Your task to perform on an android device: Empty the shopping cart on bestbuy.com. Add razer huntsman to the cart on bestbuy.com Image 0: 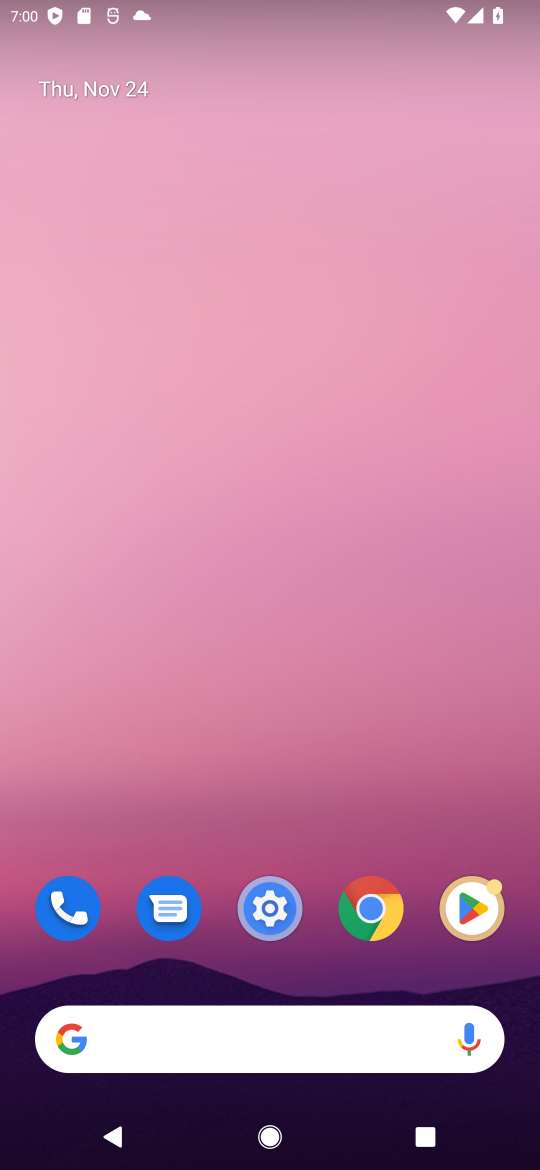
Step 0: click (338, 1025)
Your task to perform on an android device: Empty the shopping cart on bestbuy.com. Add razer huntsman to the cart on bestbuy.com Image 1: 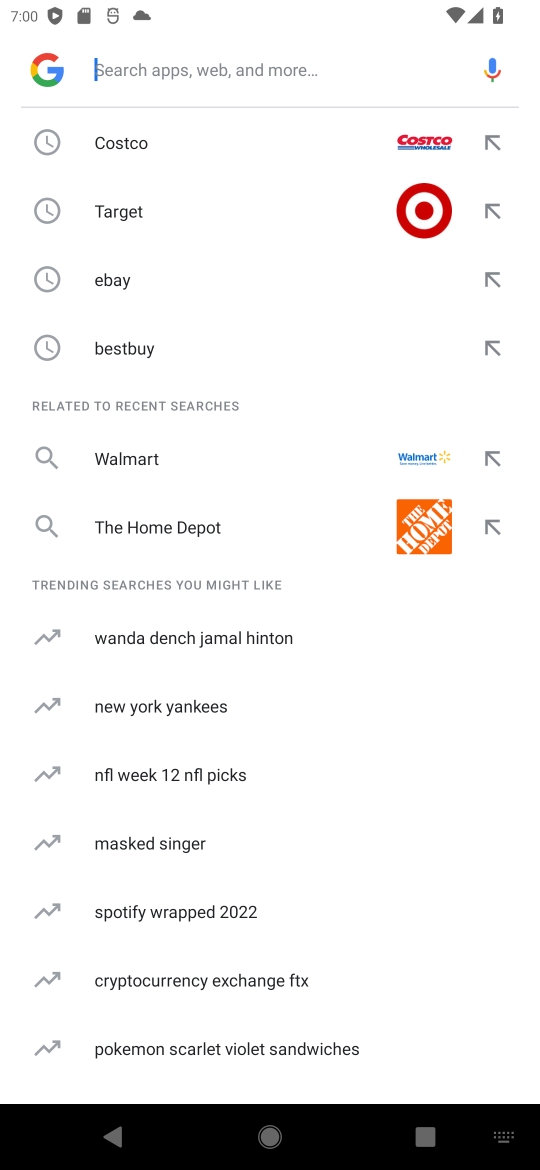
Step 1: type "bestbuy"
Your task to perform on an android device: Empty the shopping cart on bestbuy.com. Add razer huntsman to the cart on bestbuy.com Image 2: 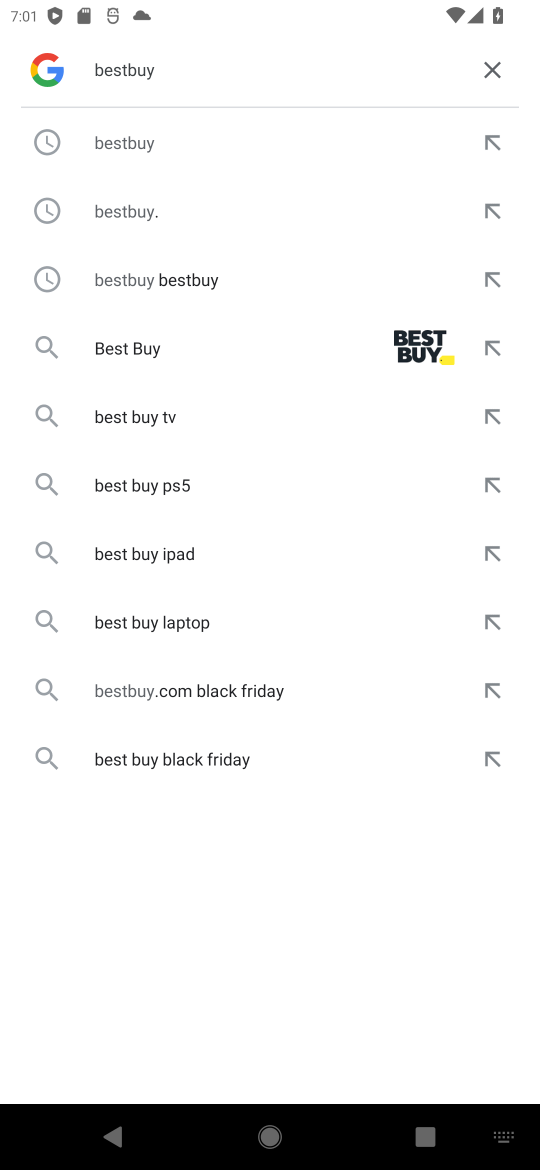
Step 2: click (128, 359)
Your task to perform on an android device: Empty the shopping cart on bestbuy.com. Add razer huntsman to the cart on bestbuy.com Image 3: 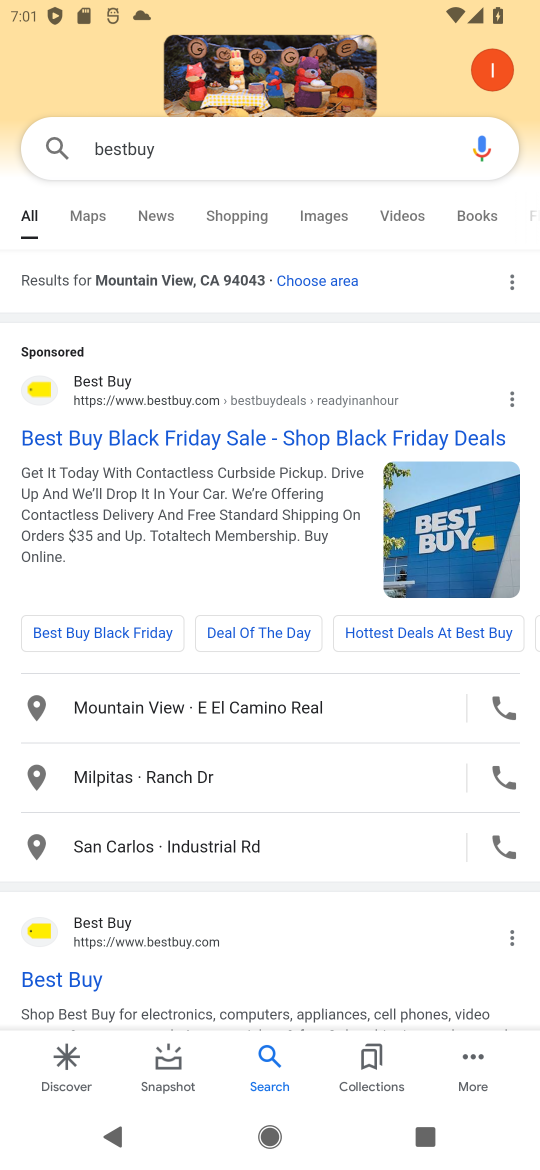
Step 3: click (266, 442)
Your task to perform on an android device: Empty the shopping cart on bestbuy.com. Add razer huntsman to the cart on bestbuy.com Image 4: 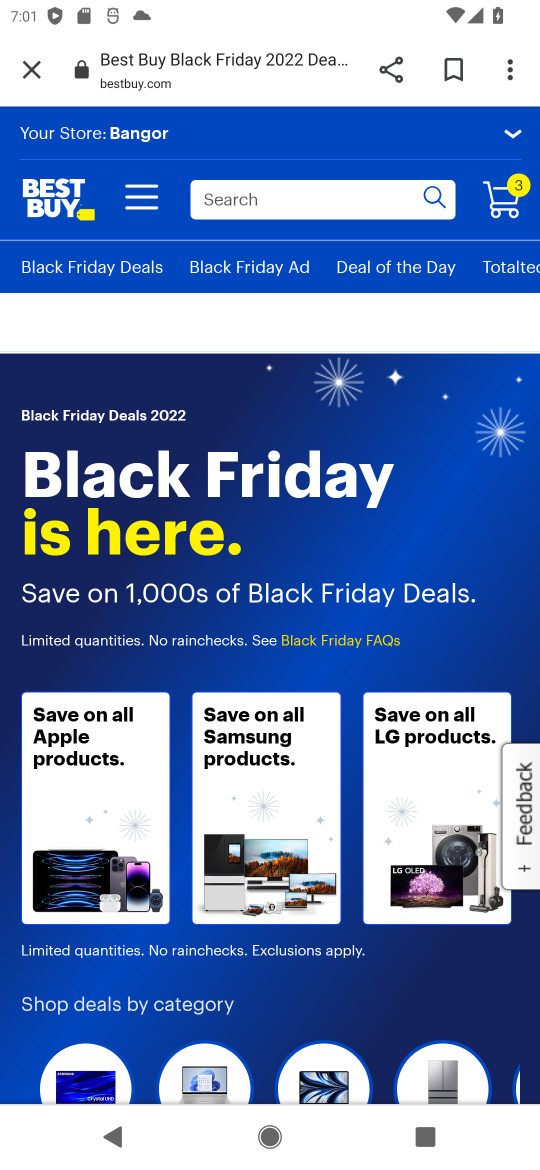
Step 4: click (381, 193)
Your task to perform on an android device: Empty the shopping cart on bestbuy.com. Add razer huntsman to the cart on bestbuy.com Image 5: 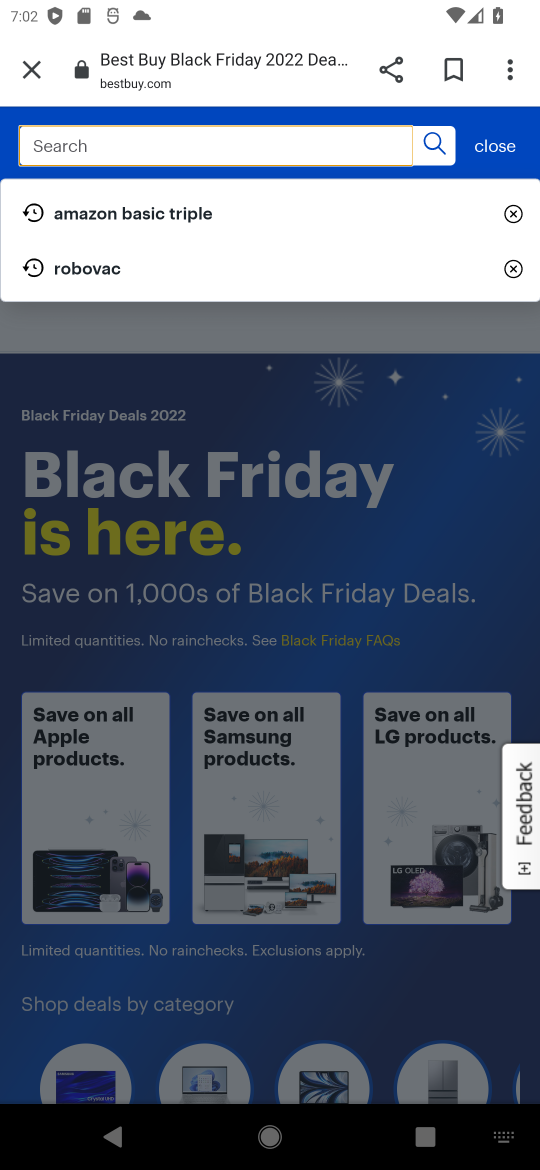
Step 5: type "razer huntsman"
Your task to perform on an android device: Empty the shopping cart on bestbuy.com. Add razer huntsman to the cart on bestbuy.com Image 6: 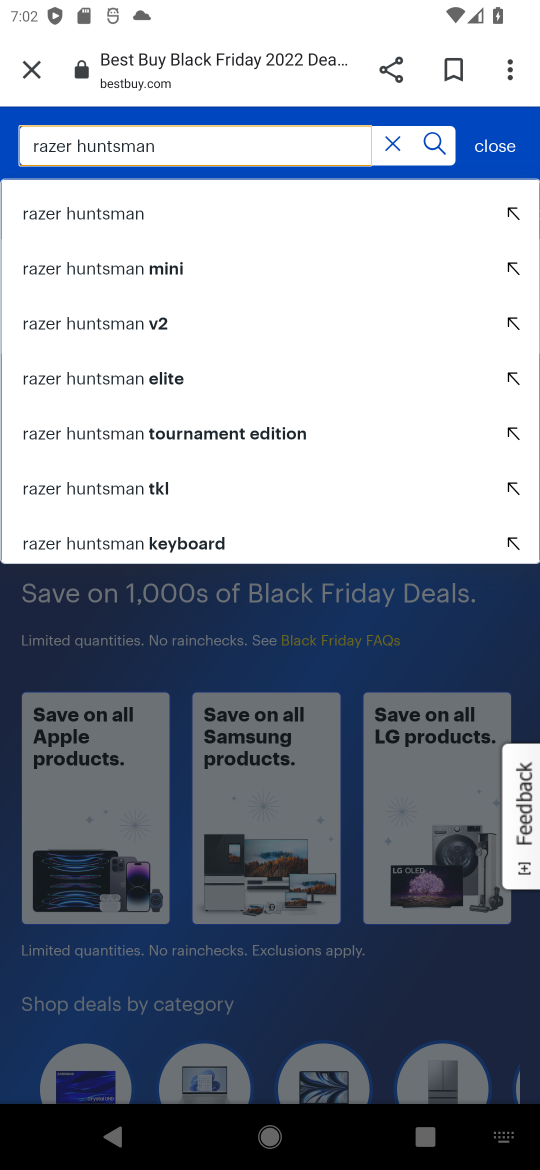
Step 6: click (441, 157)
Your task to perform on an android device: Empty the shopping cart on bestbuy.com. Add razer huntsman to the cart on bestbuy.com Image 7: 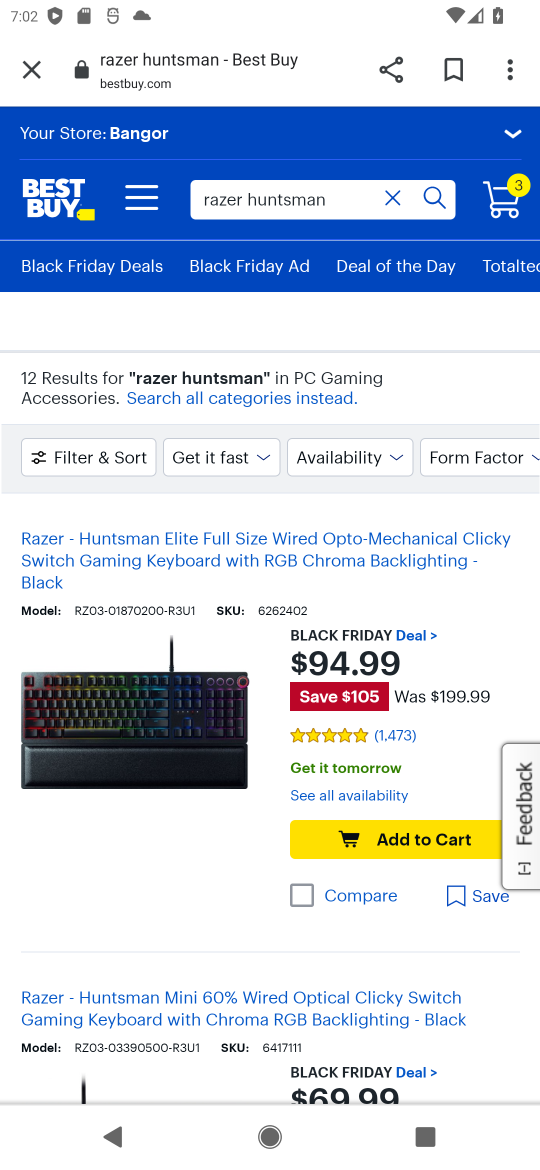
Step 7: click (432, 867)
Your task to perform on an android device: Empty the shopping cart on bestbuy.com. Add razer huntsman to the cart on bestbuy.com Image 8: 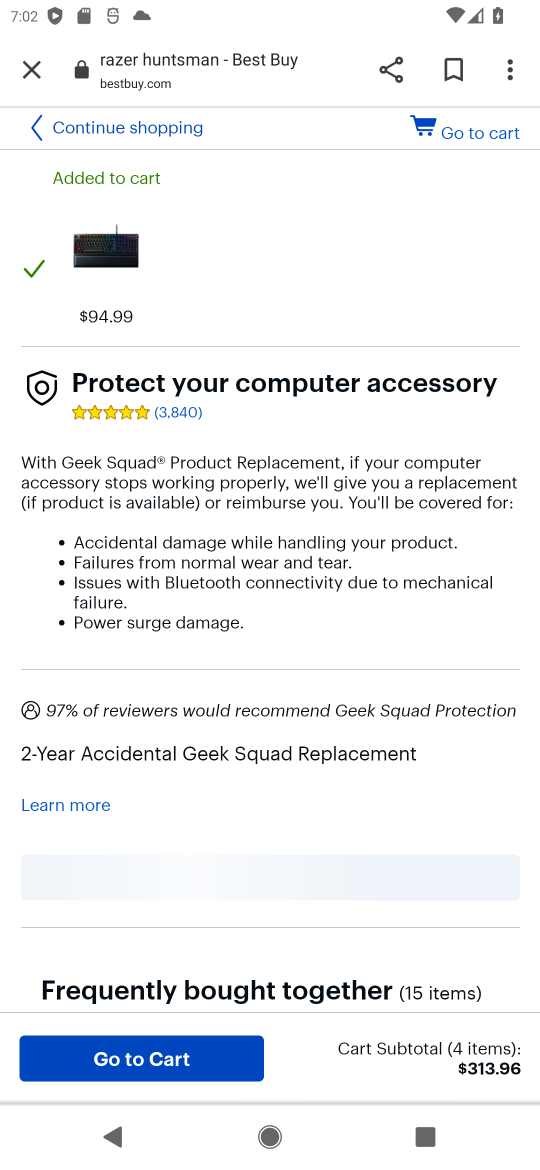
Step 8: task complete